Your task to perform on an android device: turn on airplane mode Image 0: 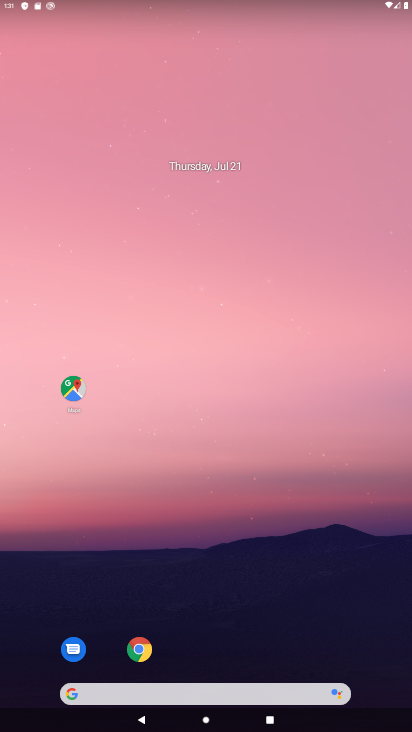
Step 0: press back button
Your task to perform on an android device: turn on airplane mode Image 1: 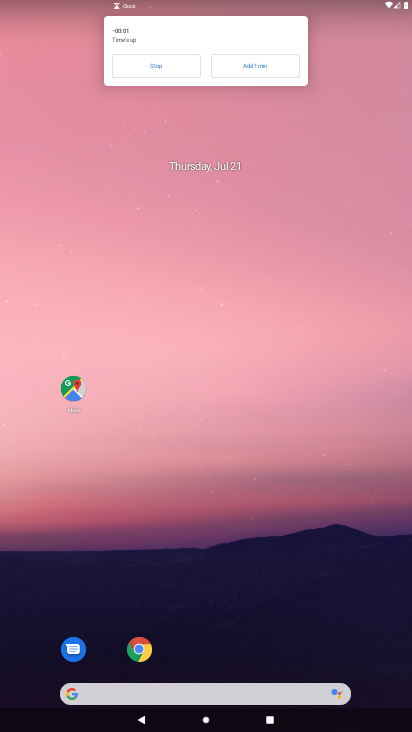
Step 1: drag from (299, 622) to (276, 223)
Your task to perform on an android device: turn on airplane mode Image 2: 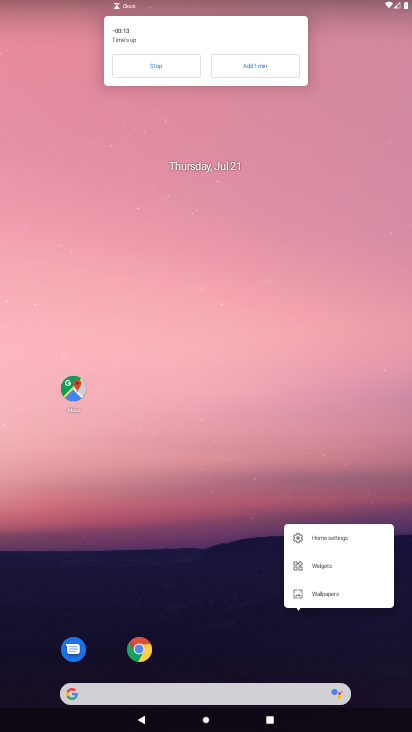
Step 2: drag from (201, 581) to (249, 189)
Your task to perform on an android device: turn on airplane mode Image 3: 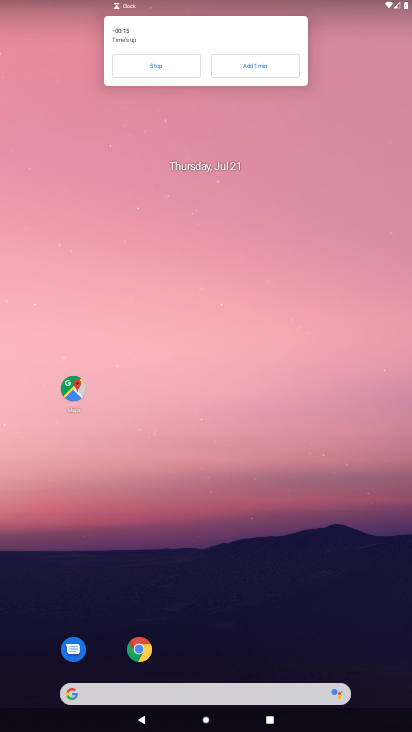
Step 3: drag from (245, 656) to (238, 236)
Your task to perform on an android device: turn on airplane mode Image 4: 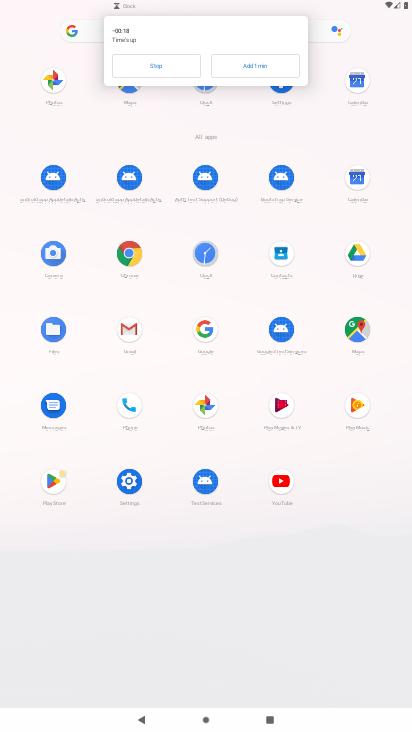
Step 4: click (174, 67)
Your task to perform on an android device: turn on airplane mode Image 5: 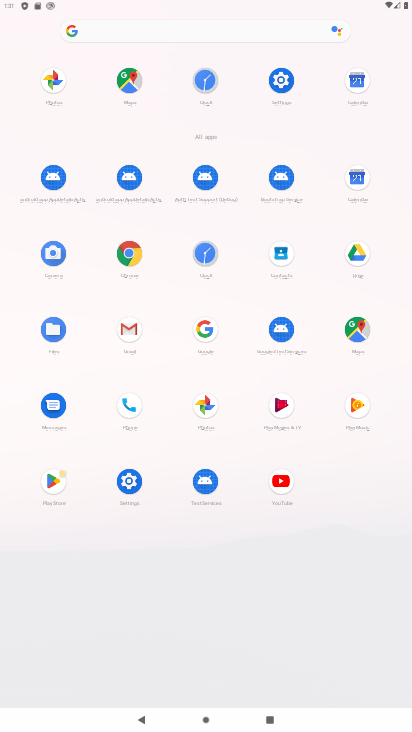
Step 5: click (277, 84)
Your task to perform on an android device: turn on airplane mode Image 6: 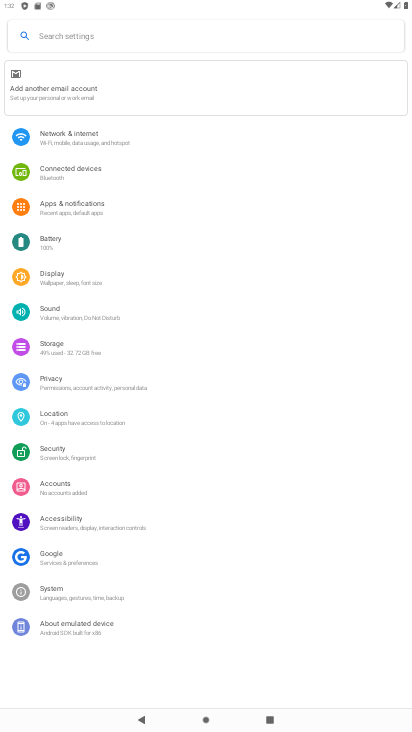
Step 6: click (109, 137)
Your task to perform on an android device: turn on airplane mode Image 7: 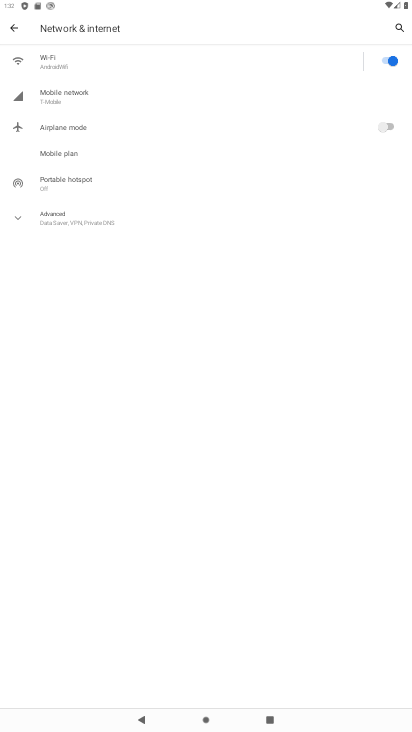
Step 7: click (393, 125)
Your task to perform on an android device: turn on airplane mode Image 8: 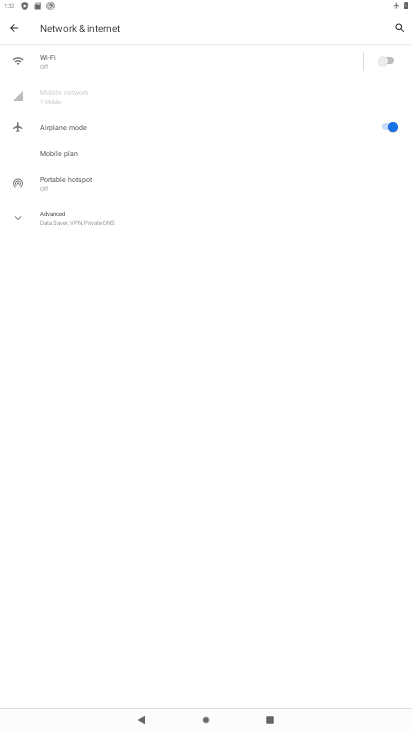
Step 8: task complete